Your task to perform on an android device: Search for the best-rated coffee table on Crate & Barrel Image 0: 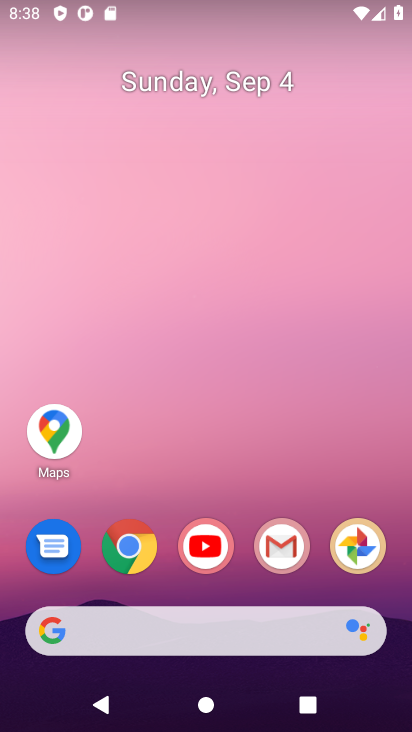
Step 0: click (138, 553)
Your task to perform on an android device: Search for the best-rated coffee table on Crate & Barrel Image 1: 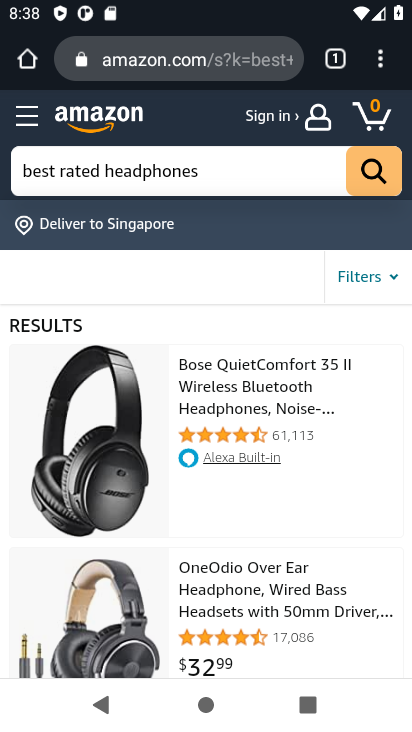
Step 1: click (223, 70)
Your task to perform on an android device: Search for the best-rated coffee table on Crate & Barrel Image 2: 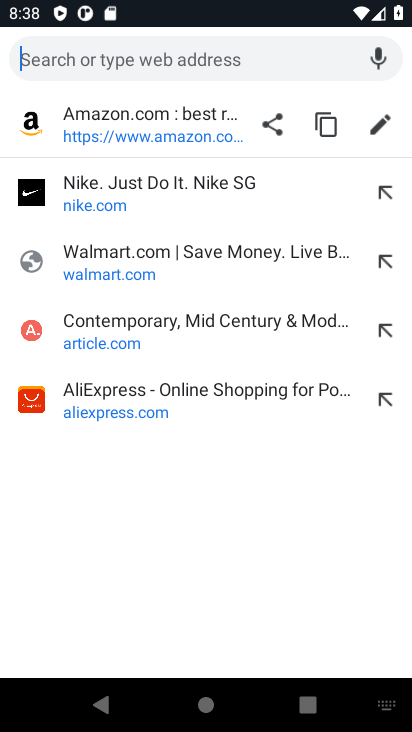
Step 2: type "Crate & Barrel"
Your task to perform on an android device: Search for the best-rated coffee table on Crate & Barrel Image 3: 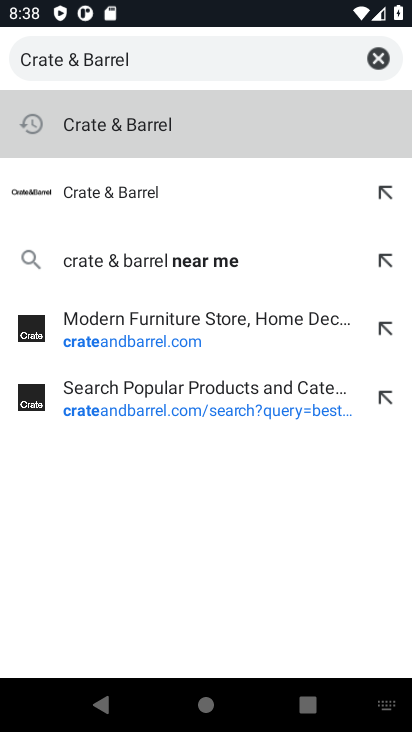
Step 3: click (104, 133)
Your task to perform on an android device: Search for the best-rated coffee table on Crate & Barrel Image 4: 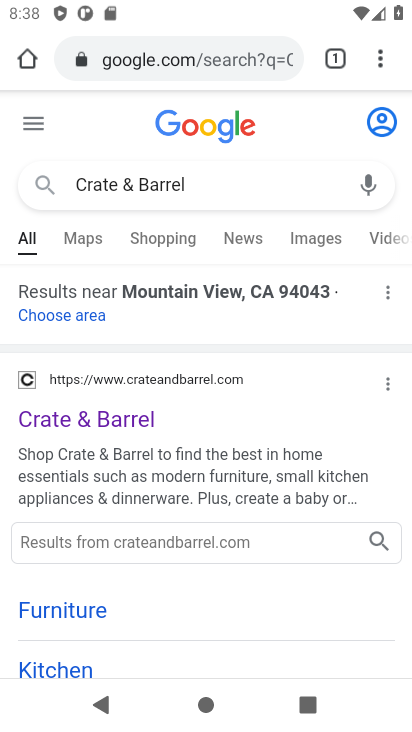
Step 4: click (114, 429)
Your task to perform on an android device: Search for the best-rated coffee table on Crate & Barrel Image 5: 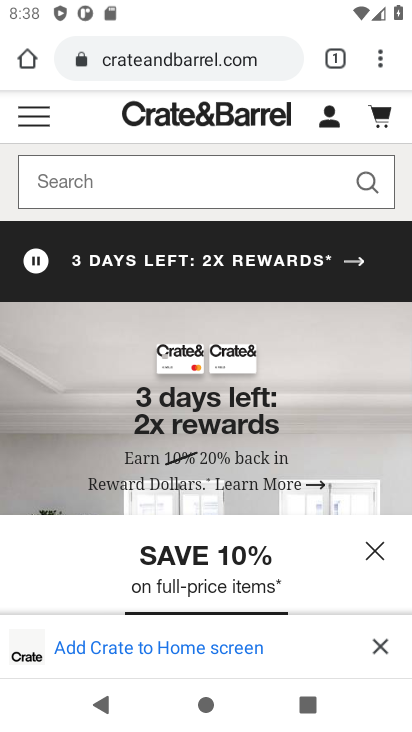
Step 5: click (222, 171)
Your task to perform on an android device: Search for the best-rated coffee table on Crate & Barrel Image 6: 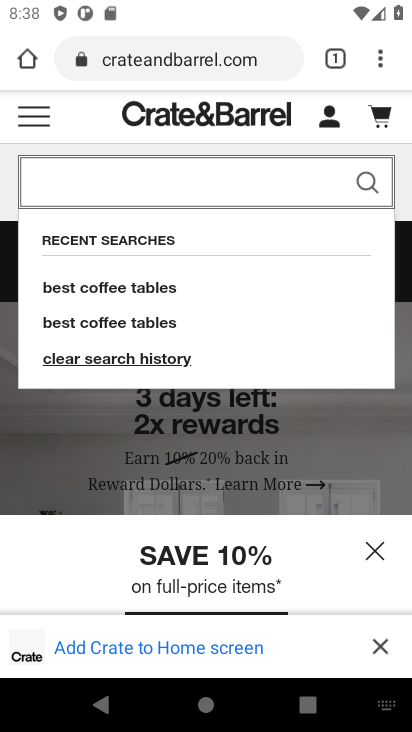
Step 6: type " best-rated coffee table "
Your task to perform on an android device: Search for the best-rated coffee table on Crate & Barrel Image 7: 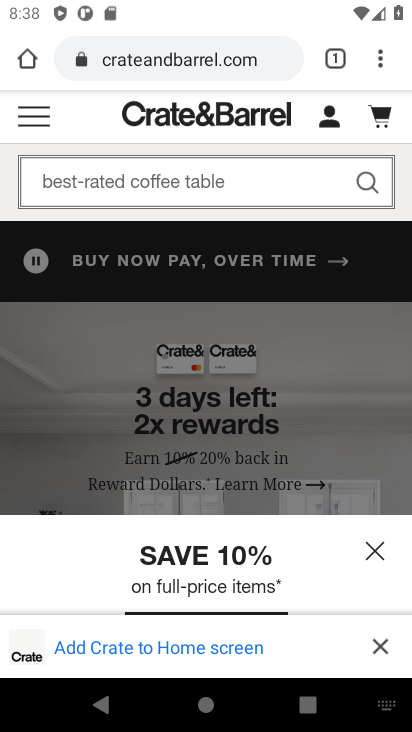
Step 7: click (366, 178)
Your task to perform on an android device: Search for the best-rated coffee table on Crate & Barrel Image 8: 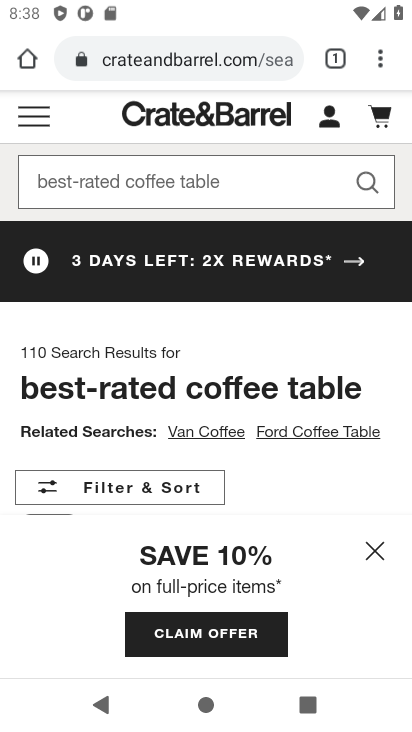
Step 8: task complete